Your task to perform on an android device: Show me the alarms in the clock app Image 0: 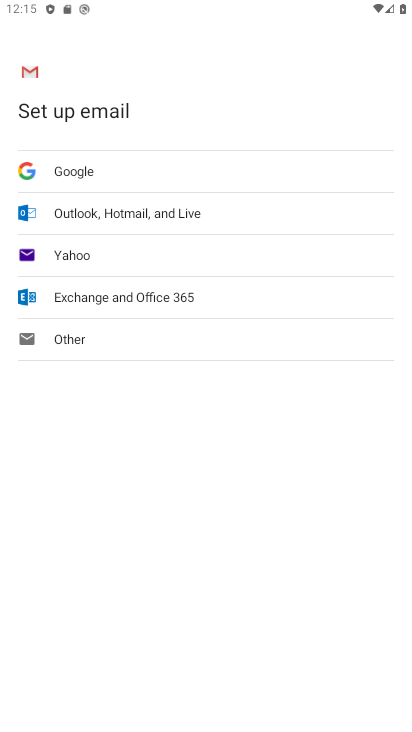
Step 0: press home button
Your task to perform on an android device: Show me the alarms in the clock app Image 1: 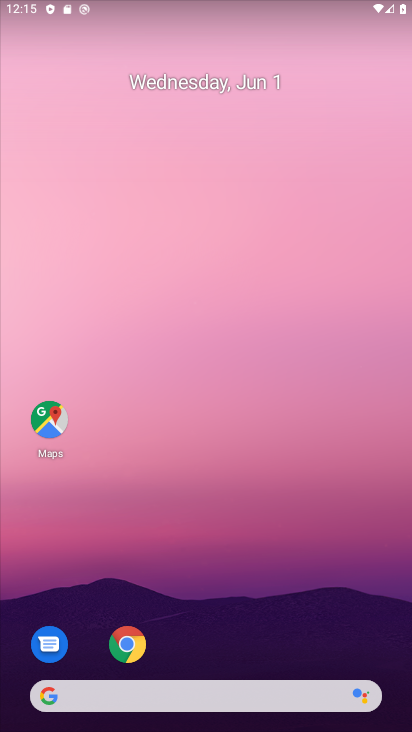
Step 1: drag from (268, 613) to (252, 113)
Your task to perform on an android device: Show me the alarms in the clock app Image 2: 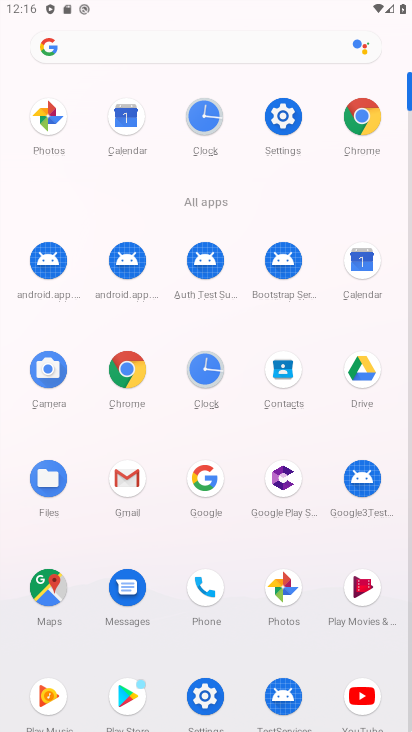
Step 2: click (199, 382)
Your task to perform on an android device: Show me the alarms in the clock app Image 3: 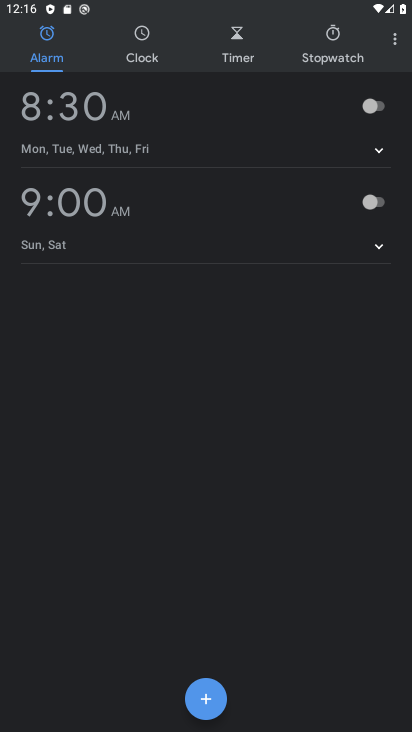
Step 3: task complete